Your task to perform on an android device: turn off wifi Image 0: 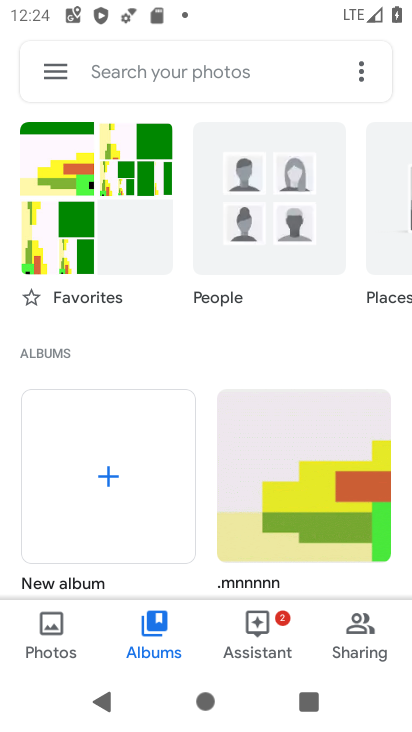
Step 0: press home button
Your task to perform on an android device: turn off wifi Image 1: 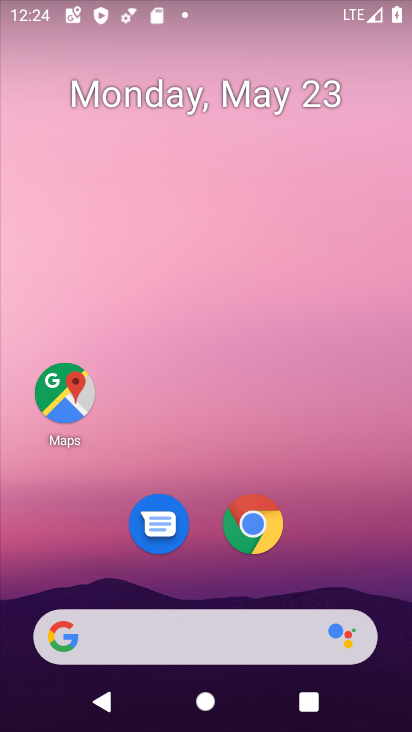
Step 1: drag from (250, 433) to (247, 28)
Your task to perform on an android device: turn off wifi Image 2: 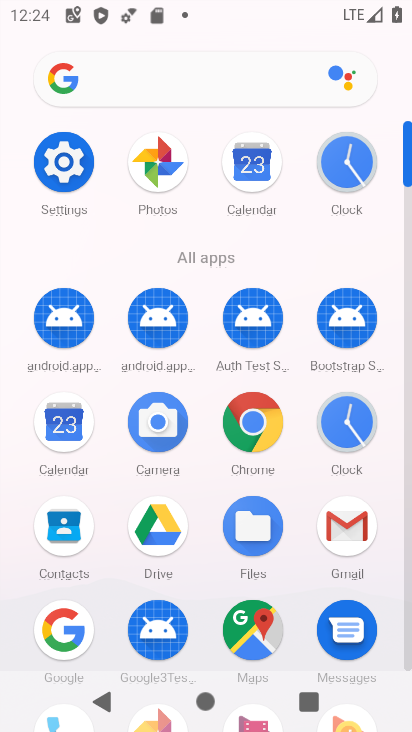
Step 2: click (74, 159)
Your task to perform on an android device: turn off wifi Image 3: 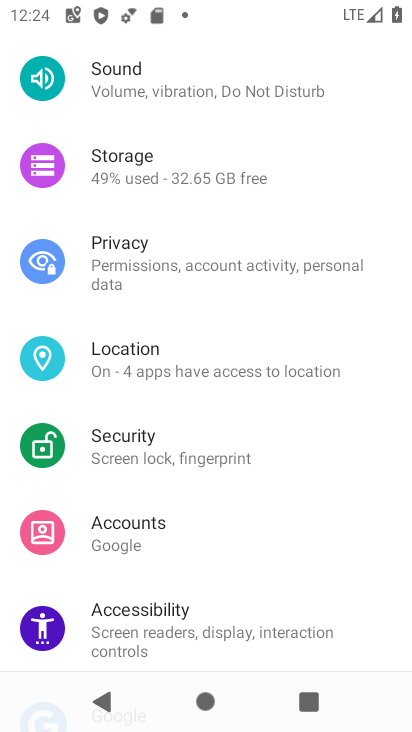
Step 3: drag from (178, 205) to (140, 608)
Your task to perform on an android device: turn off wifi Image 4: 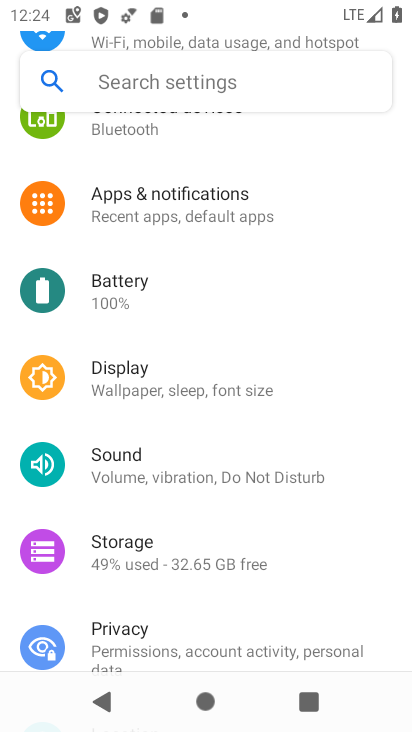
Step 4: drag from (208, 304) to (233, 602)
Your task to perform on an android device: turn off wifi Image 5: 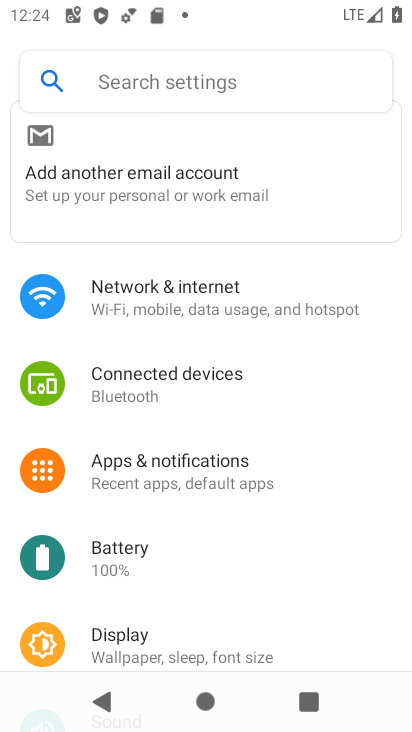
Step 5: click (214, 300)
Your task to perform on an android device: turn off wifi Image 6: 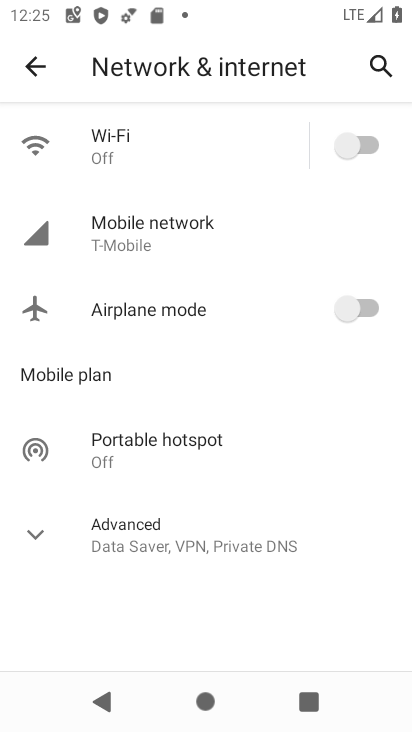
Step 6: task complete